Your task to perform on an android device: find which apps use the phone's location Image 0: 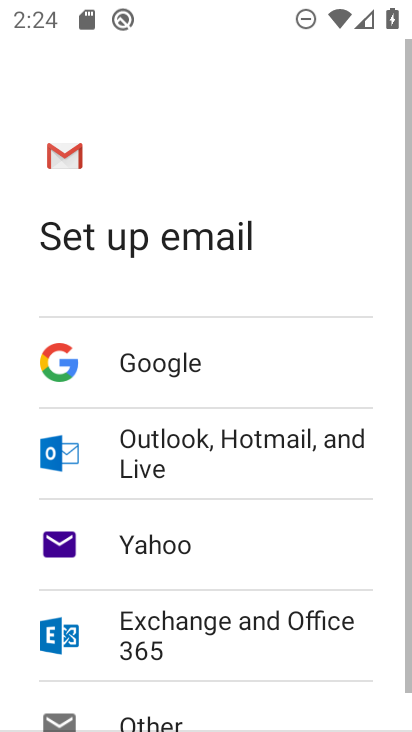
Step 0: press home button
Your task to perform on an android device: find which apps use the phone's location Image 1: 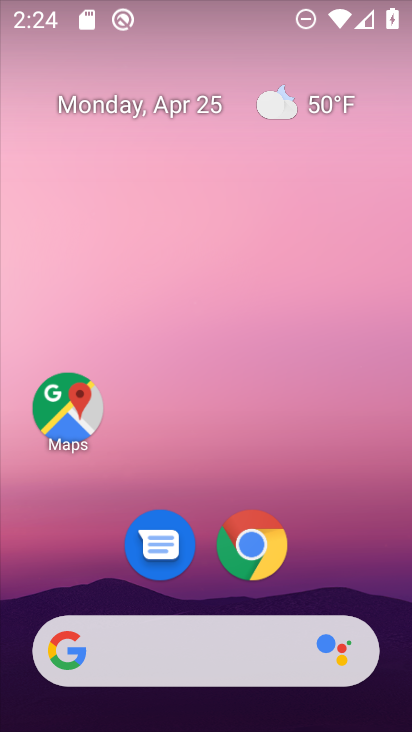
Step 1: drag from (332, 541) to (239, 134)
Your task to perform on an android device: find which apps use the phone's location Image 2: 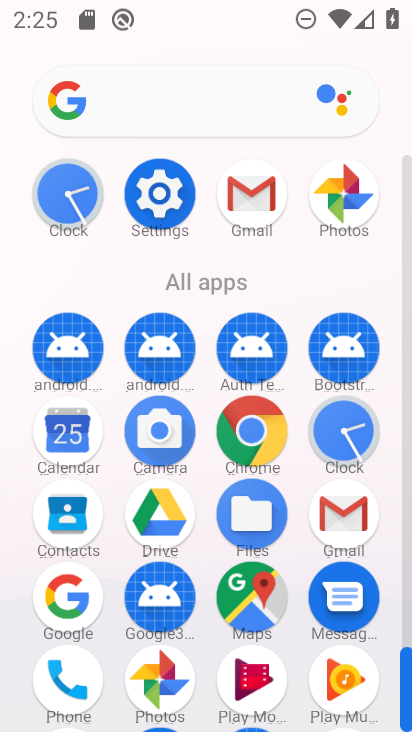
Step 2: click (164, 220)
Your task to perform on an android device: find which apps use the phone's location Image 3: 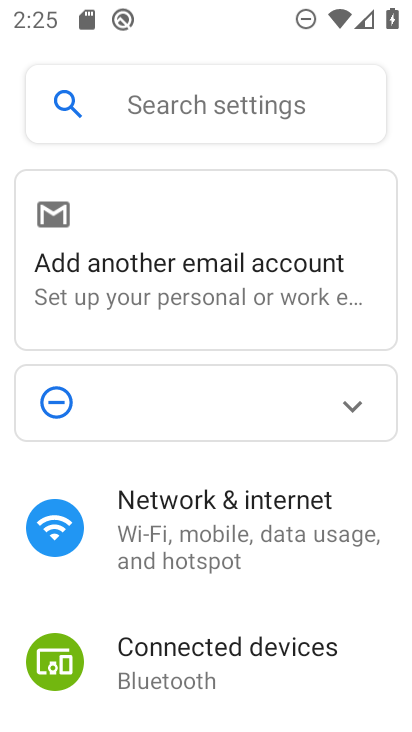
Step 3: drag from (325, 613) to (285, 84)
Your task to perform on an android device: find which apps use the phone's location Image 4: 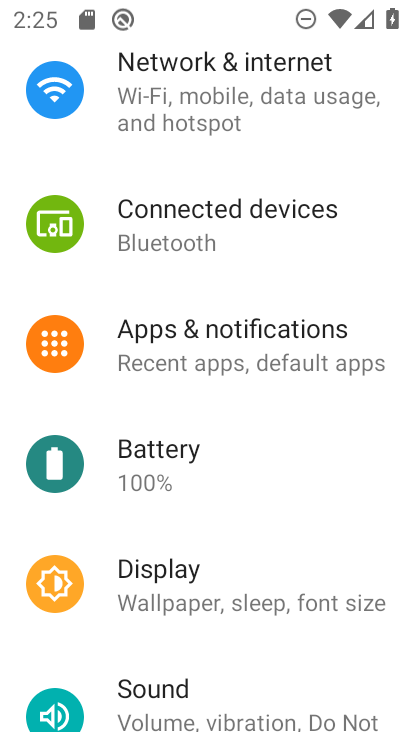
Step 4: drag from (224, 660) to (194, 211)
Your task to perform on an android device: find which apps use the phone's location Image 5: 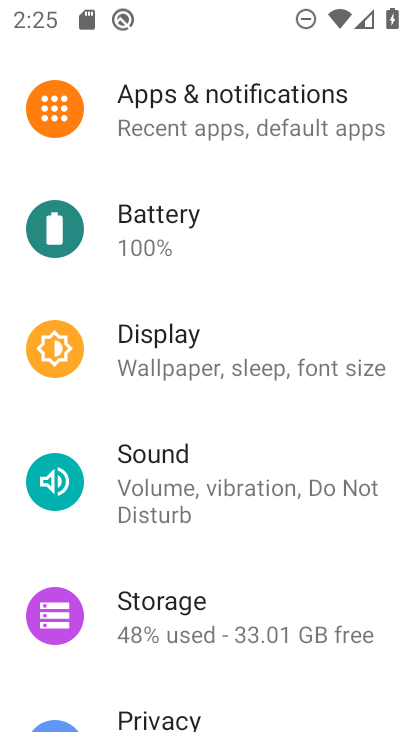
Step 5: drag from (249, 613) to (248, 173)
Your task to perform on an android device: find which apps use the phone's location Image 6: 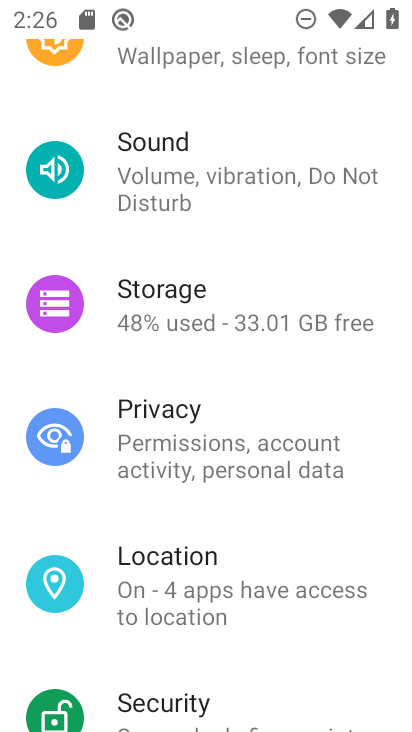
Step 6: click (249, 590)
Your task to perform on an android device: find which apps use the phone's location Image 7: 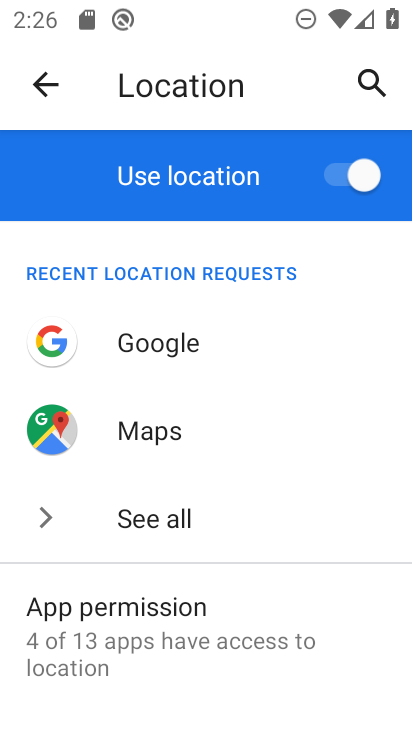
Step 7: click (288, 650)
Your task to perform on an android device: find which apps use the phone's location Image 8: 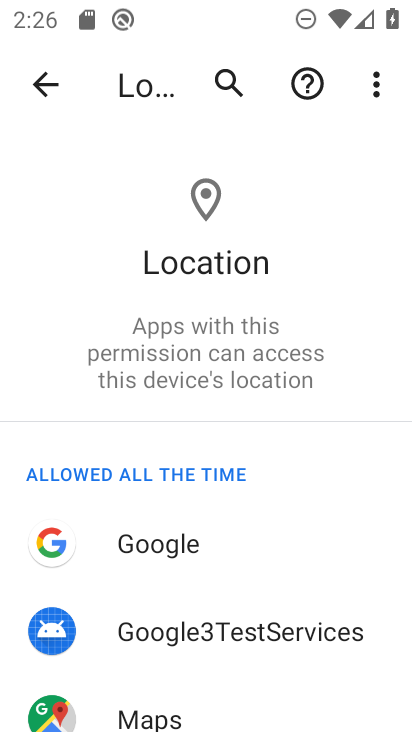
Step 8: task complete